Your task to perform on an android device: What's the weather? Image 0: 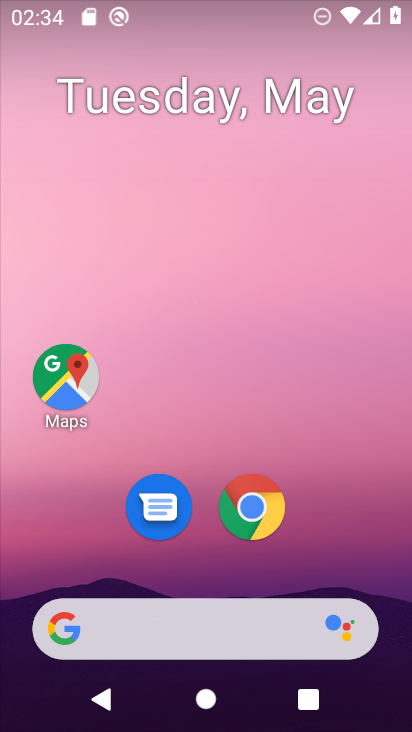
Step 0: drag from (197, 561) to (226, 207)
Your task to perform on an android device: What's the weather? Image 1: 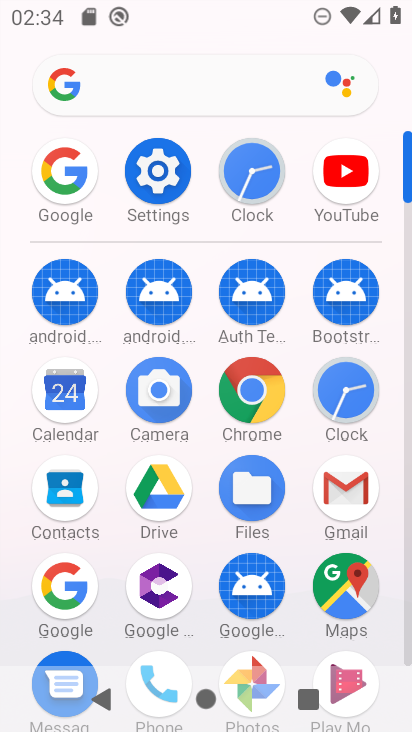
Step 1: click (69, 187)
Your task to perform on an android device: What's the weather? Image 2: 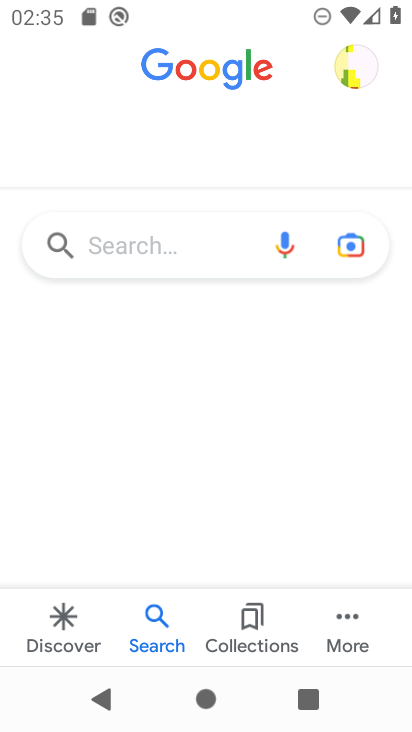
Step 2: press home button
Your task to perform on an android device: What's the weather? Image 3: 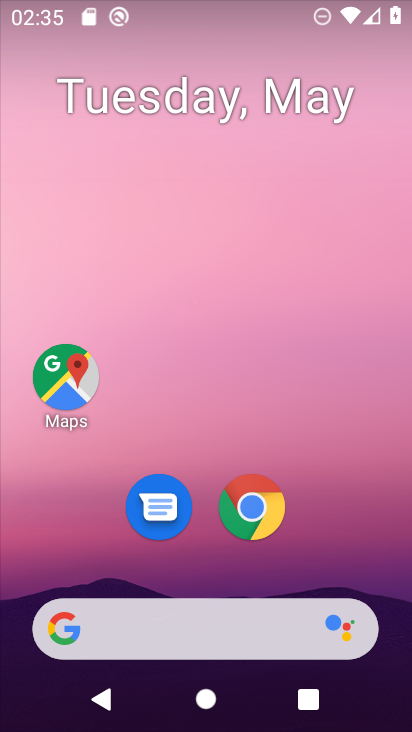
Step 3: drag from (177, 569) to (185, 222)
Your task to perform on an android device: What's the weather? Image 4: 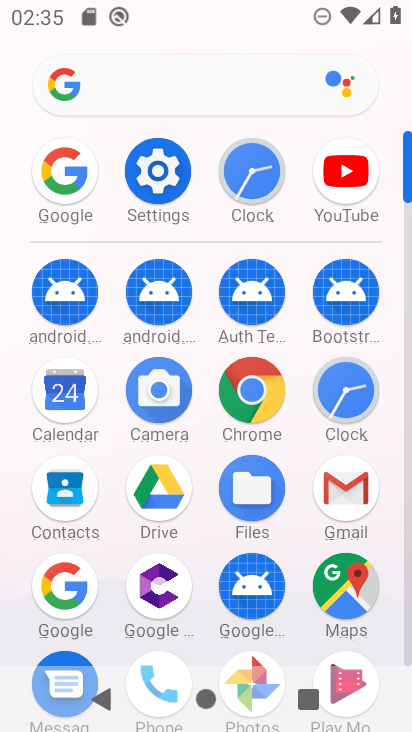
Step 4: click (83, 588)
Your task to perform on an android device: What's the weather? Image 5: 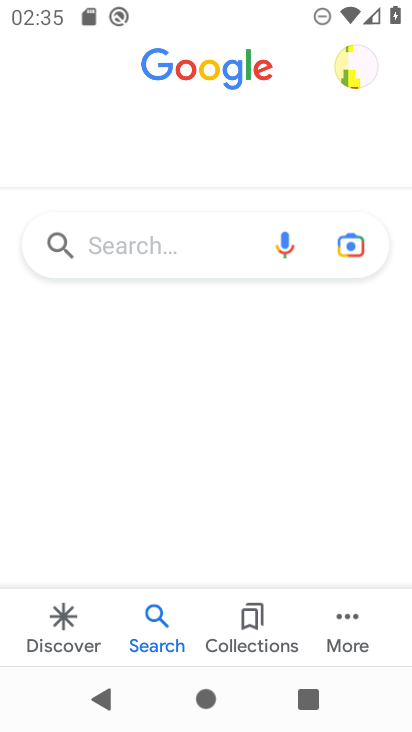
Step 5: click (203, 215)
Your task to perform on an android device: What's the weather? Image 6: 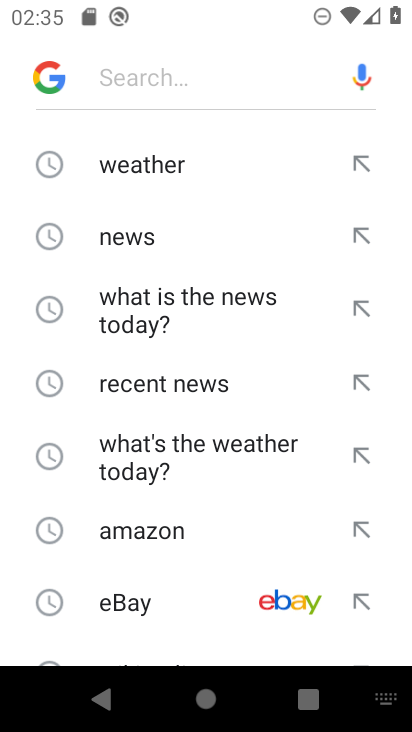
Step 6: click (124, 167)
Your task to perform on an android device: What's the weather? Image 7: 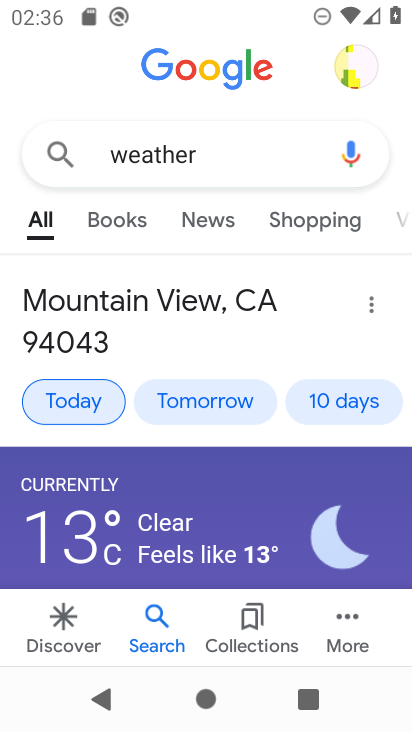
Step 7: task complete